Your task to perform on an android device: turn on airplane mode Image 0: 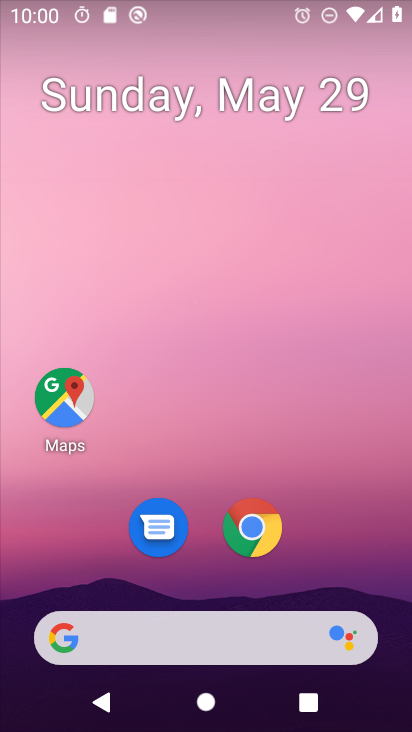
Step 0: drag from (270, 7) to (365, 539)
Your task to perform on an android device: turn on airplane mode Image 1: 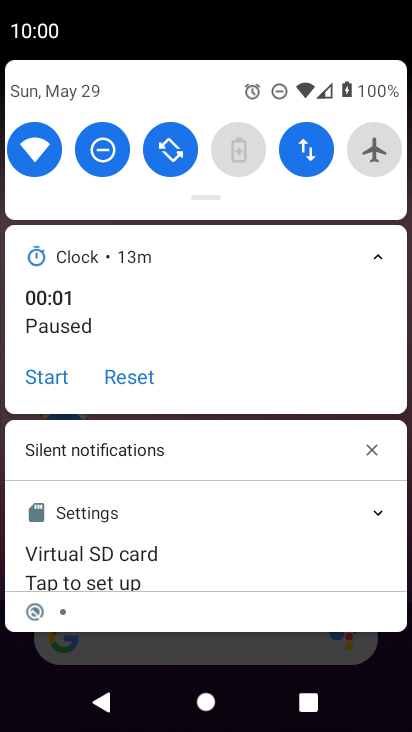
Step 1: click (368, 159)
Your task to perform on an android device: turn on airplane mode Image 2: 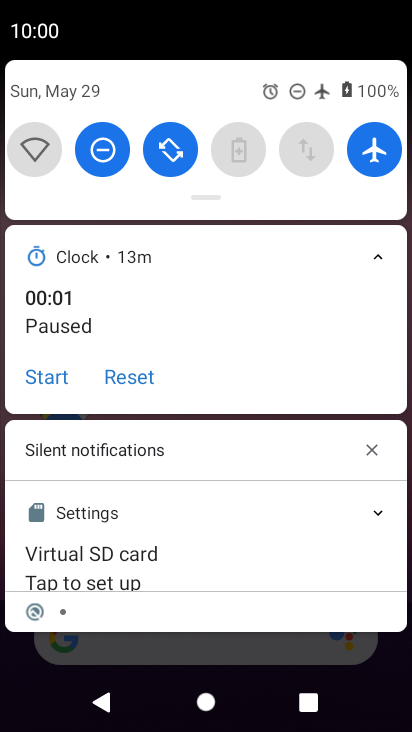
Step 2: task complete